Your task to perform on an android device: change keyboard looks Image 0: 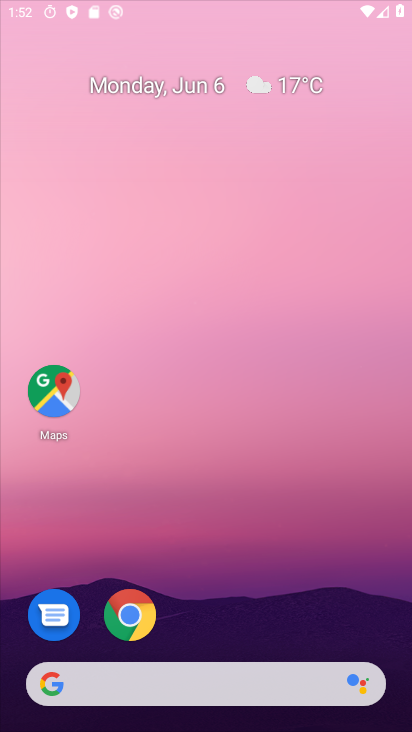
Step 0: click (361, 121)
Your task to perform on an android device: change keyboard looks Image 1: 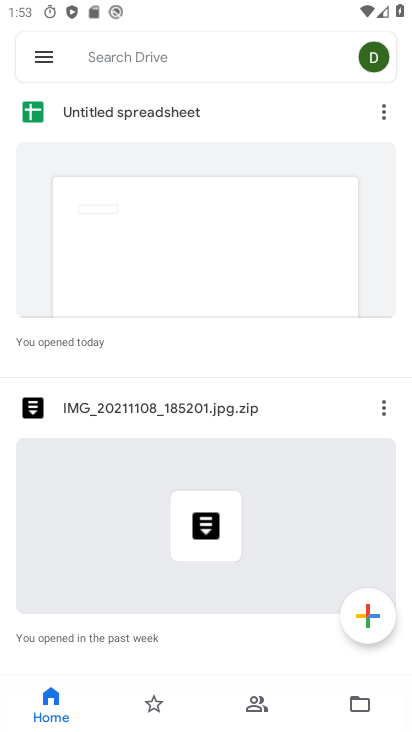
Step 1: drag from (236, 452) to (303, 92)
Your task to perform on an android device: change keyboard looks Image 2: 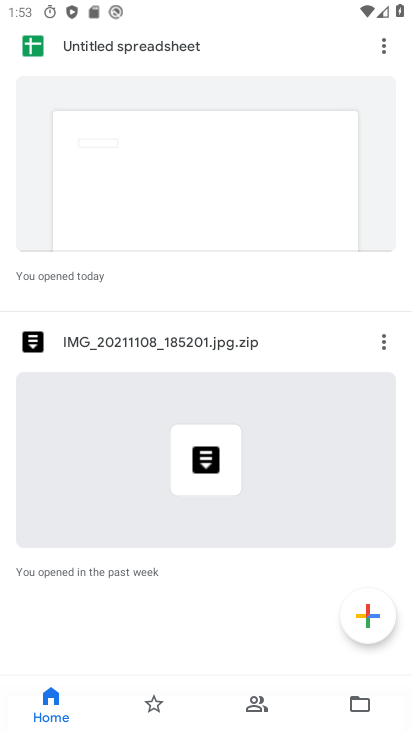
Step 2: drag from (318, 151) to (374, 496)
Your task to perform on an android device: change keyboard looks Image 3: 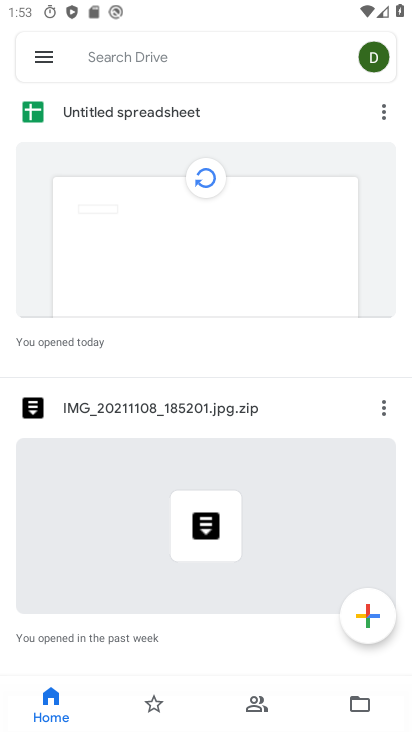
Step 3: press home button
Your task to perform on an android device: change keyboard looks Image 4: 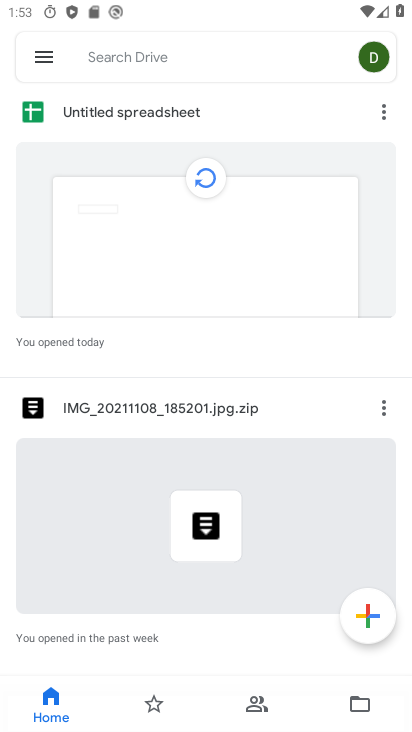
Step 4: click (404, 386)
Your task to perform on an android device: change keyboard looks Image 5: 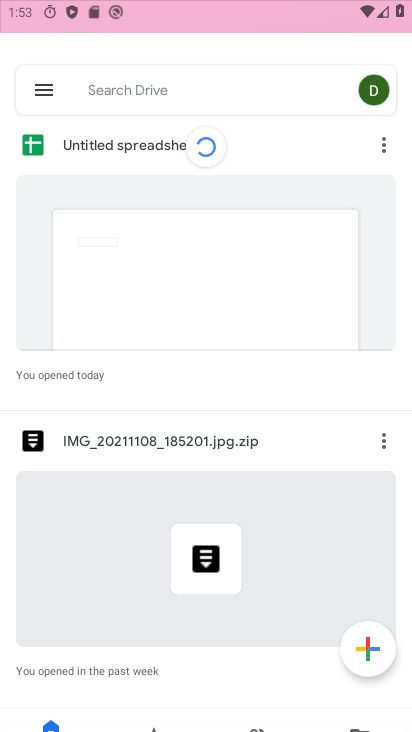
Step 5: drag from (153, 532) to (224, 49)
Your task to perform on an android device: change keyboard looks Image 6: 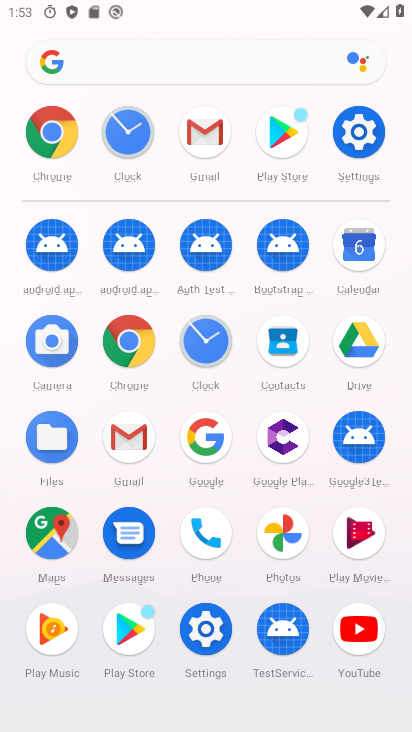
Step 6: click (365, 131)
Your task to perform on an android device: change keyboard looks Image 7: 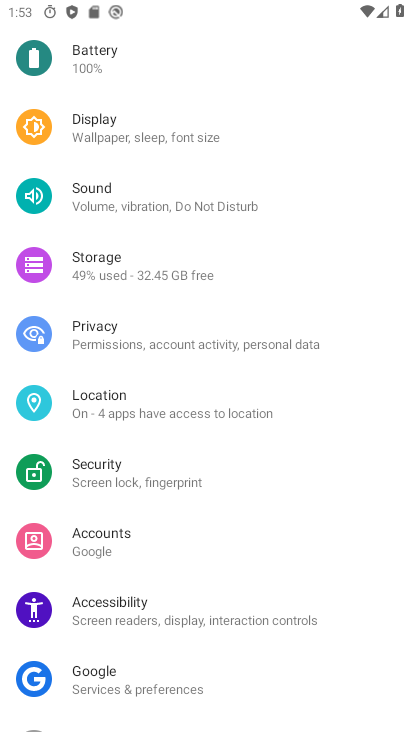
Step 7: drag from (144, 144) to (233, 369)
Your task to perform on an android device: change keyboard looks Image 8: 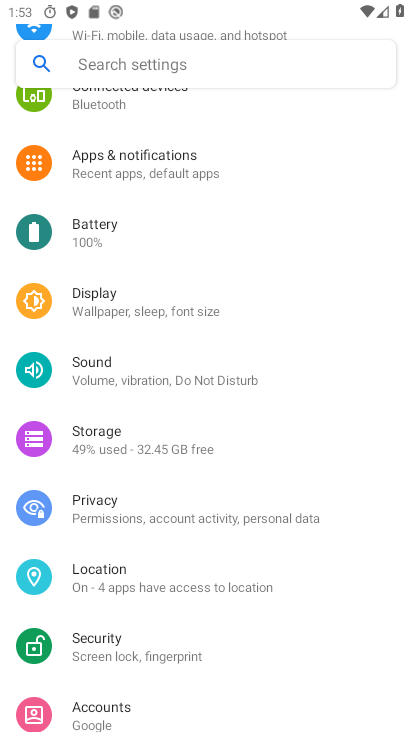
Step 8: drag from (151, 190) to (244, 509)
Your task to perform on an android device: change keyboard looks Image 9: 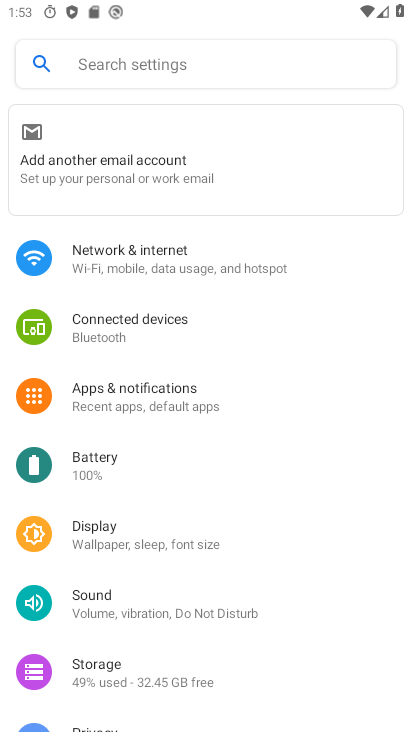
Step 9: drag from (222, 535) to (282, 150)
Your task to perform on an android device: change keyboard looks Image 10: 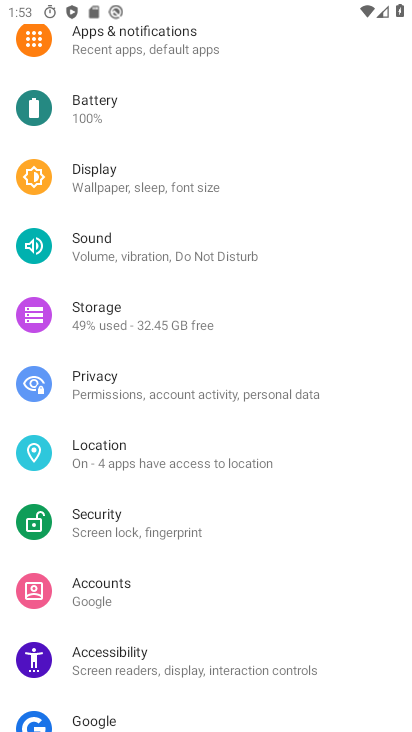
Step 10: drag from (232, 687) to (253, 4)
Your task to perform on an android device: change keyboard looks Image 11: 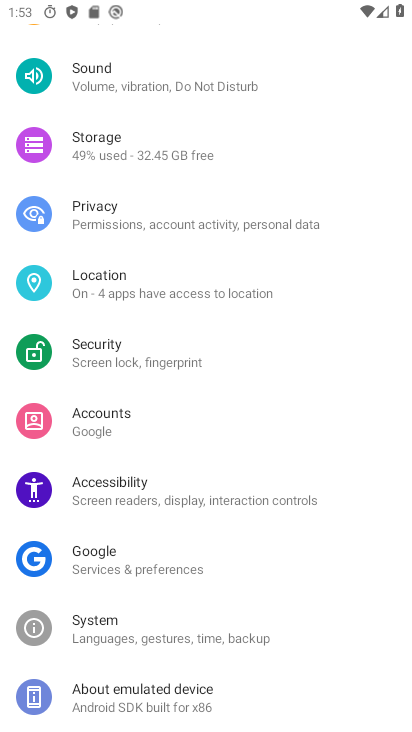
Step 11: drag from (233, 656) to (280, 131)
Your task to perform on an android device: change keyboard looks Image 12: 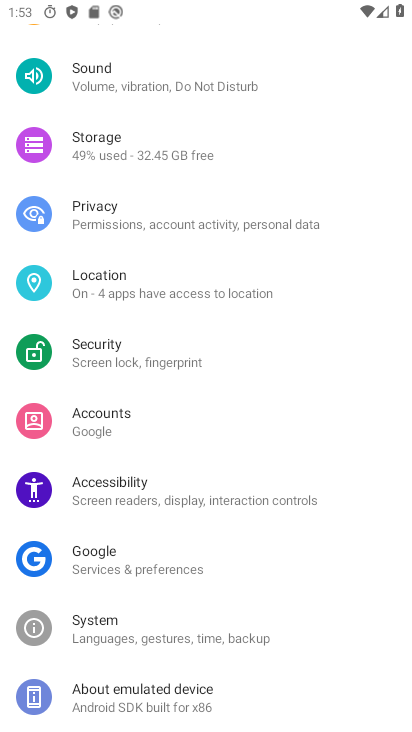
Step 12: drag from (178, 532) to (257, 214)
Your task to perform on an android device: change keyboard looks Image 13: 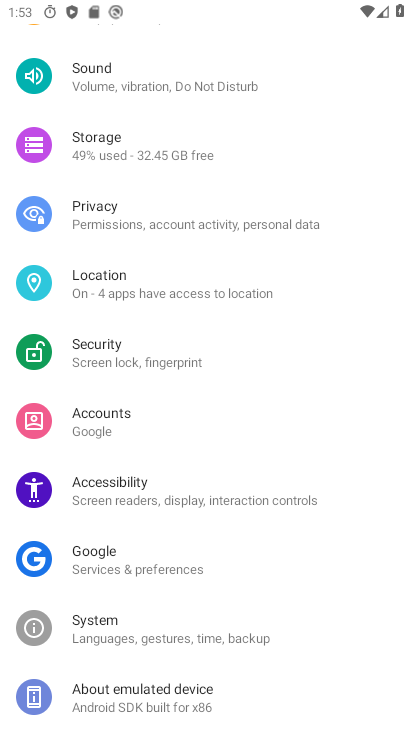
Step 13: click (152, 621)
Your task to perform on an android device: change keyboard looks Image 14: 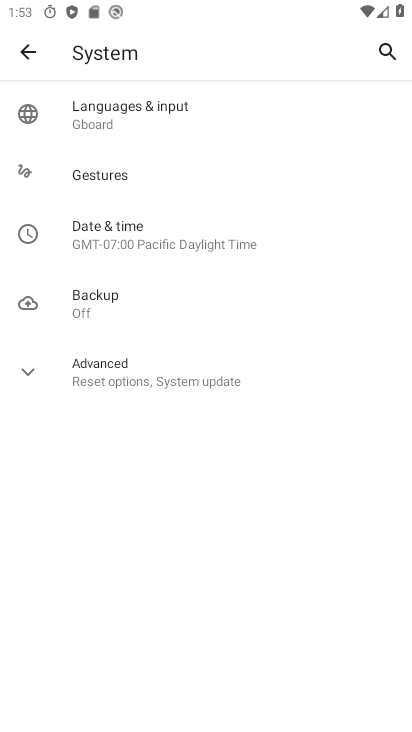
Step 14: click (192, 124)
Your task to perform on an android device: change keyboard looks Image 15: 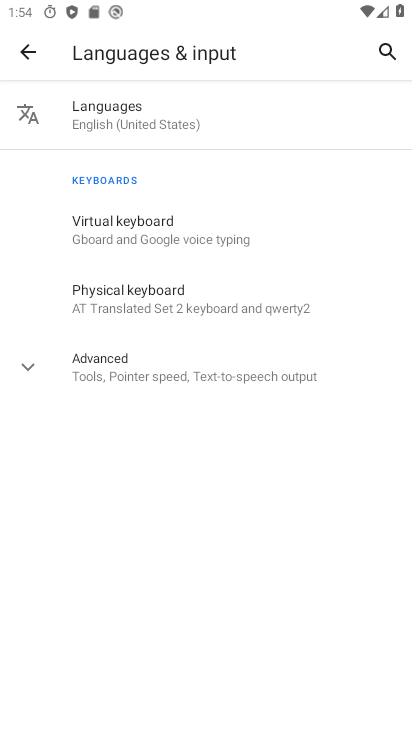
Step 15: click (163, 224)
Your task to perform on an android device: change keyboard looks Image 16: 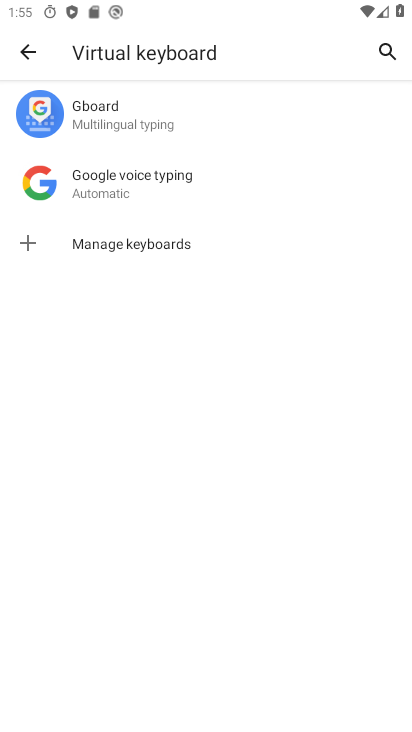
Step 16: click (181, 112)
Your task to perform on an android device: change keyboard looks Image 17: 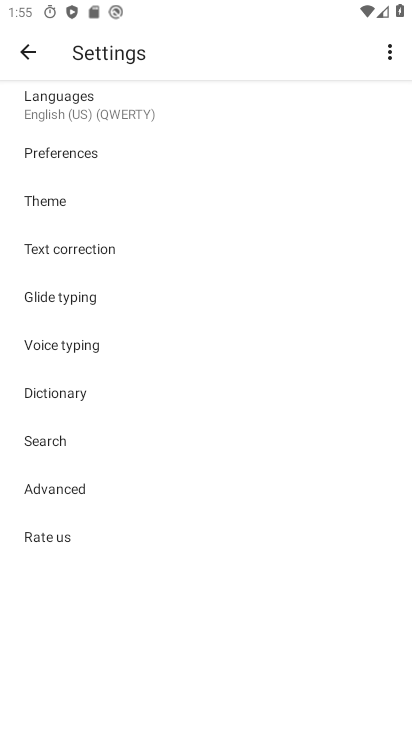
Step 17: click (111, 211)
Your task to perform on an android device: change keyboard looks Image 18: 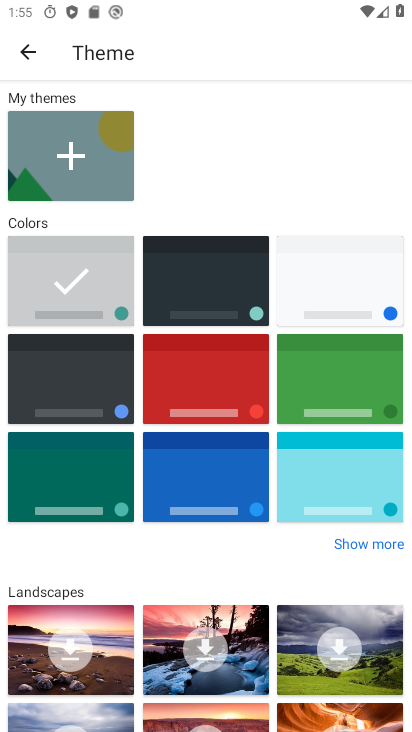
Step 18: click (211, 286)
Your task to perform on an android device: change keyboard looks Image 19: 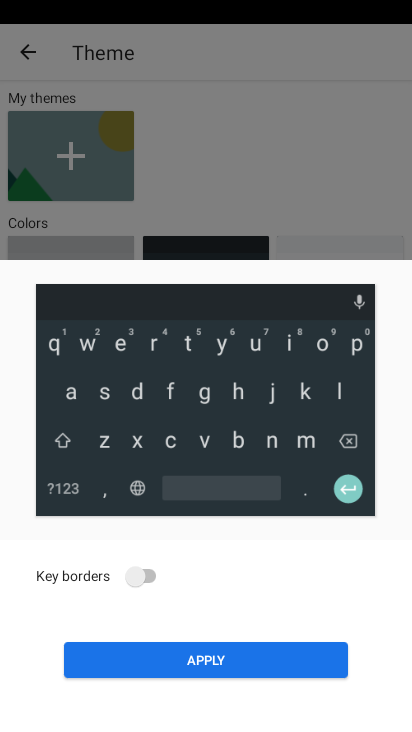
Step 19: click (202, 658)
Your task to perform on an android device: change keyboard looks Image 20: 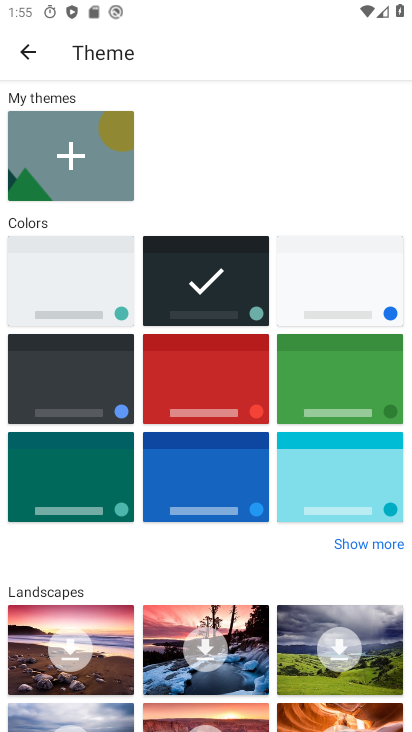
Step 20: task complete